Your task to perform on an android device: check battery use Image 0: 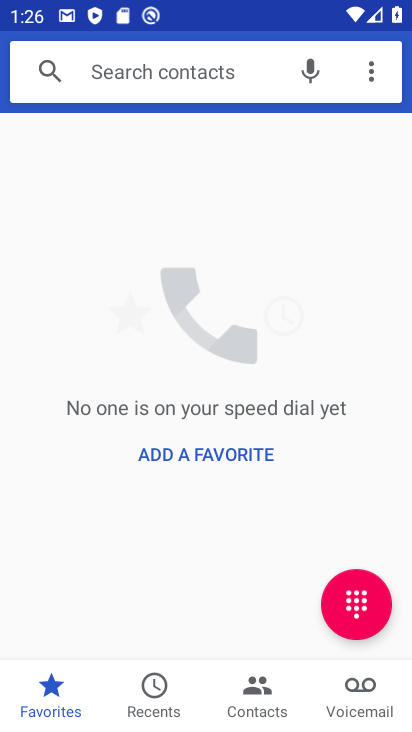
Step 0: press home button
Your task to perform on an android device: check battery use Image 1: 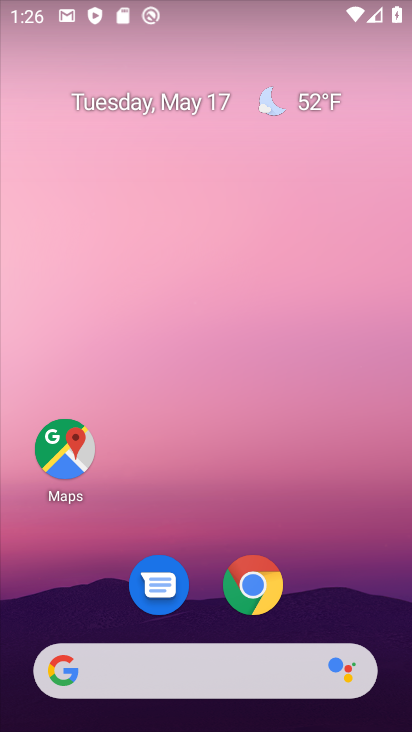
Step 1: drag from (316, 556) to (309, 75)
Your task to perform on an android device: check battery use Image 2: 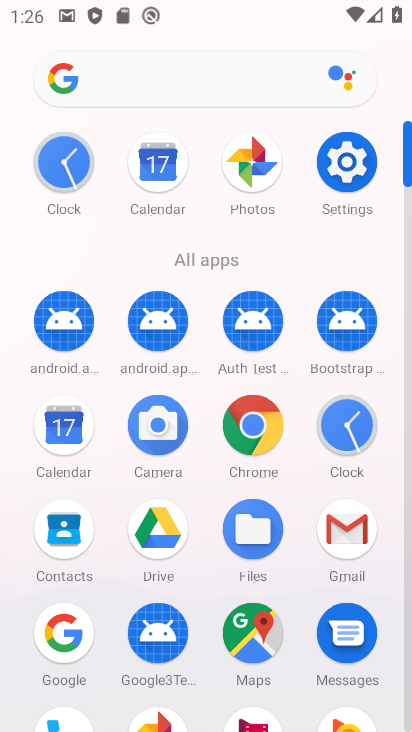
Step 2: click (338, 162)
Your task to perform on an android device: check battery use Image 3: 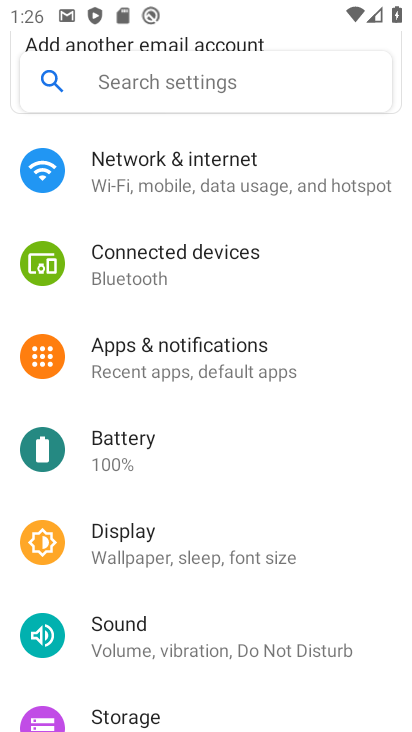
Step 3: click (235, 438)
Your task to perform on an android device: check battery use Image 4: 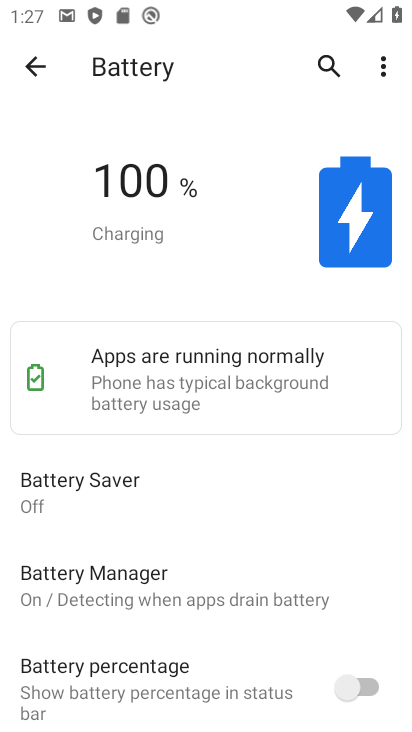
Step 4: click (383, 55)
Your task to perform on an android device: check battery use Image 5: 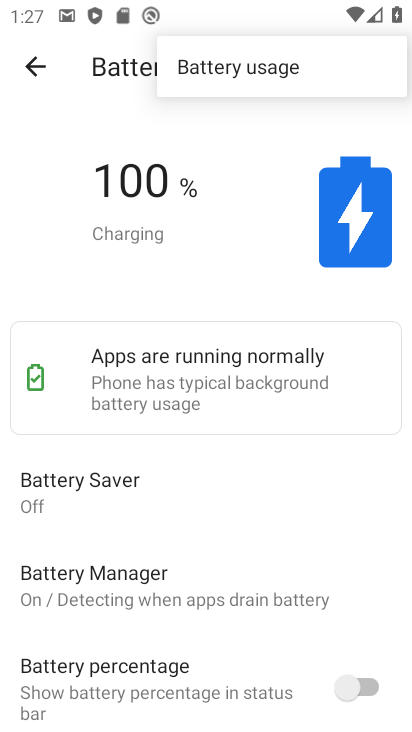
Step 5: click (313, 66)
Your task to perform on an android device: check battery use Image 6: 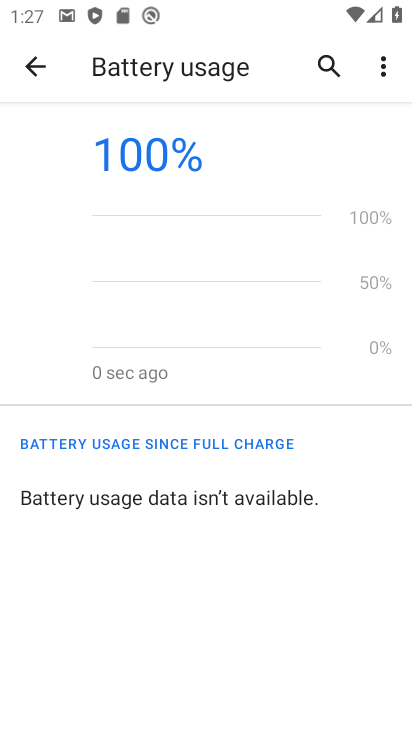
Step 6: task complete